Your task to perform on an android device: Check the weather Image 0: 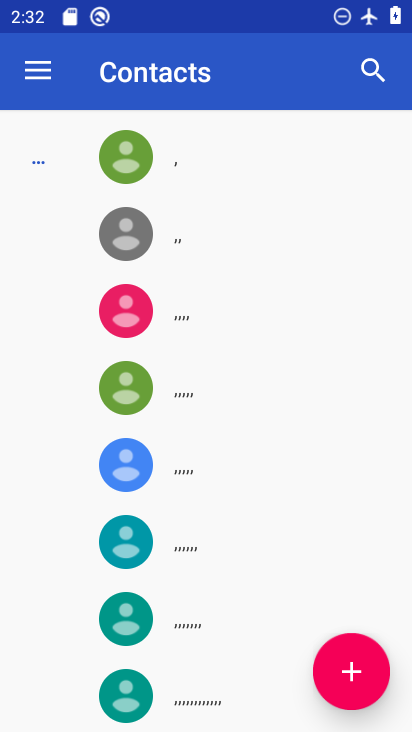
Step 0: press home button
Your task to perform on an android device: Check the weather Image 1: 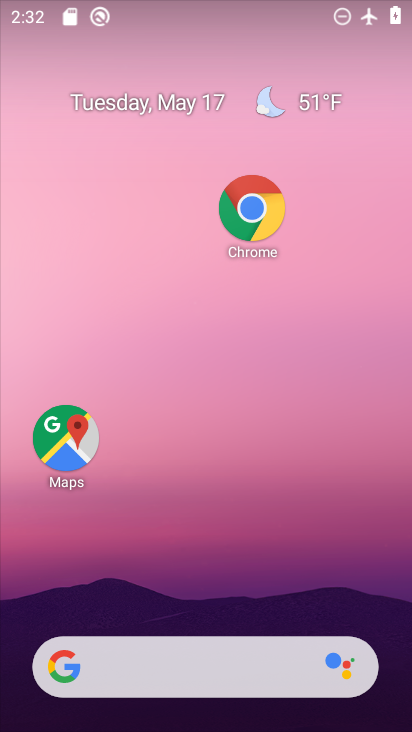
Step 1: click (209, 659)
Your task to perform on an android device: Check the weather Image 2: 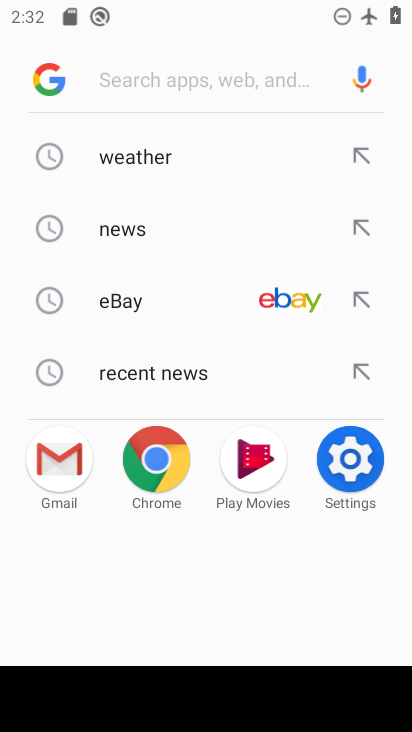
Step 2: click (156, 160)
Your task to perform on an android device: Check the weather Image 3: 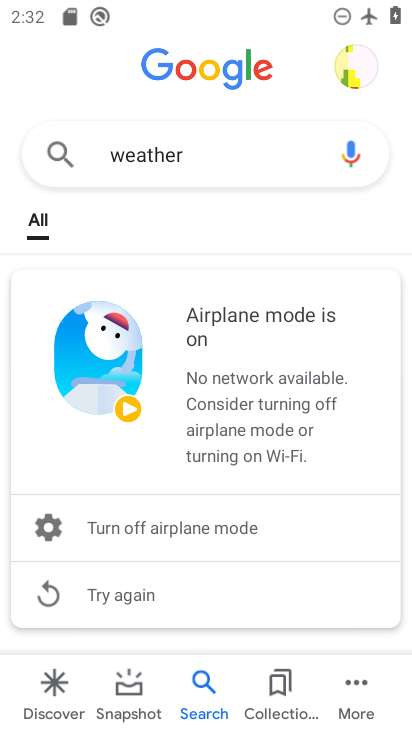
Step 3: task complete